Your task to perform on an android device: Open the phone app and click the voicemail tab. Image 0: 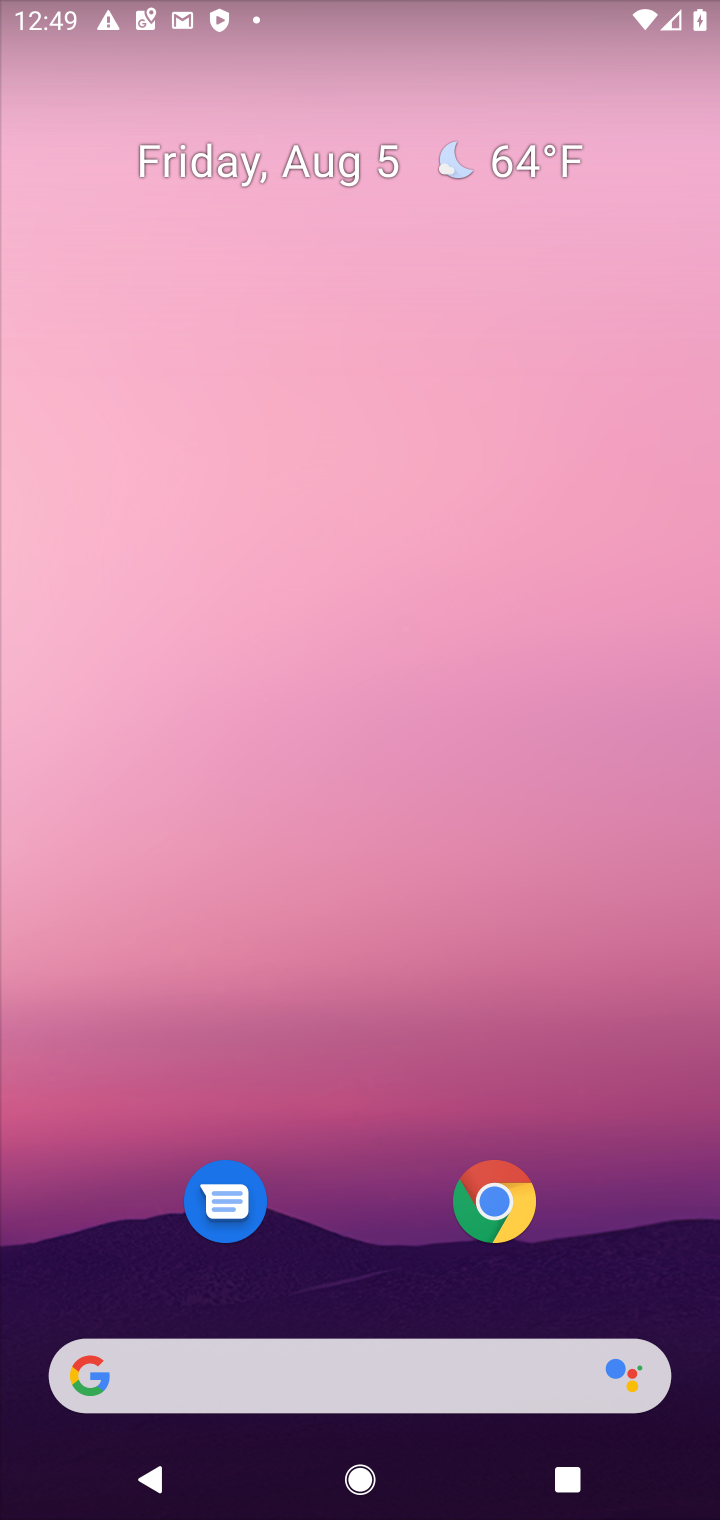
Step 0: drag from (631, 1226) to (641, 363)
Your task to perform on an android device: Open the phone app and click the voicemail tab. Image 1: 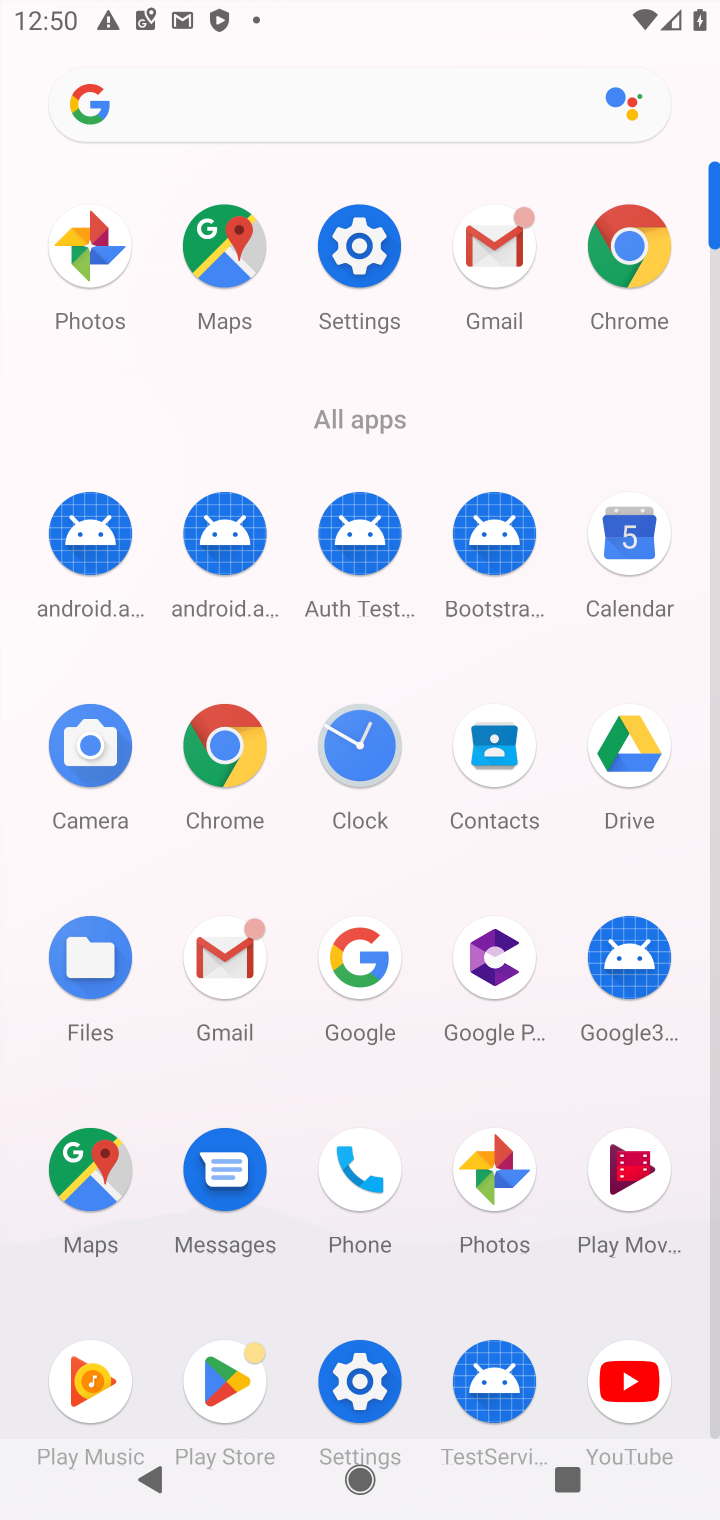
Step 1: click (373, 1171)
Your task to perform on an android device: Open the phone app and click the voicemail tab. Image 2: 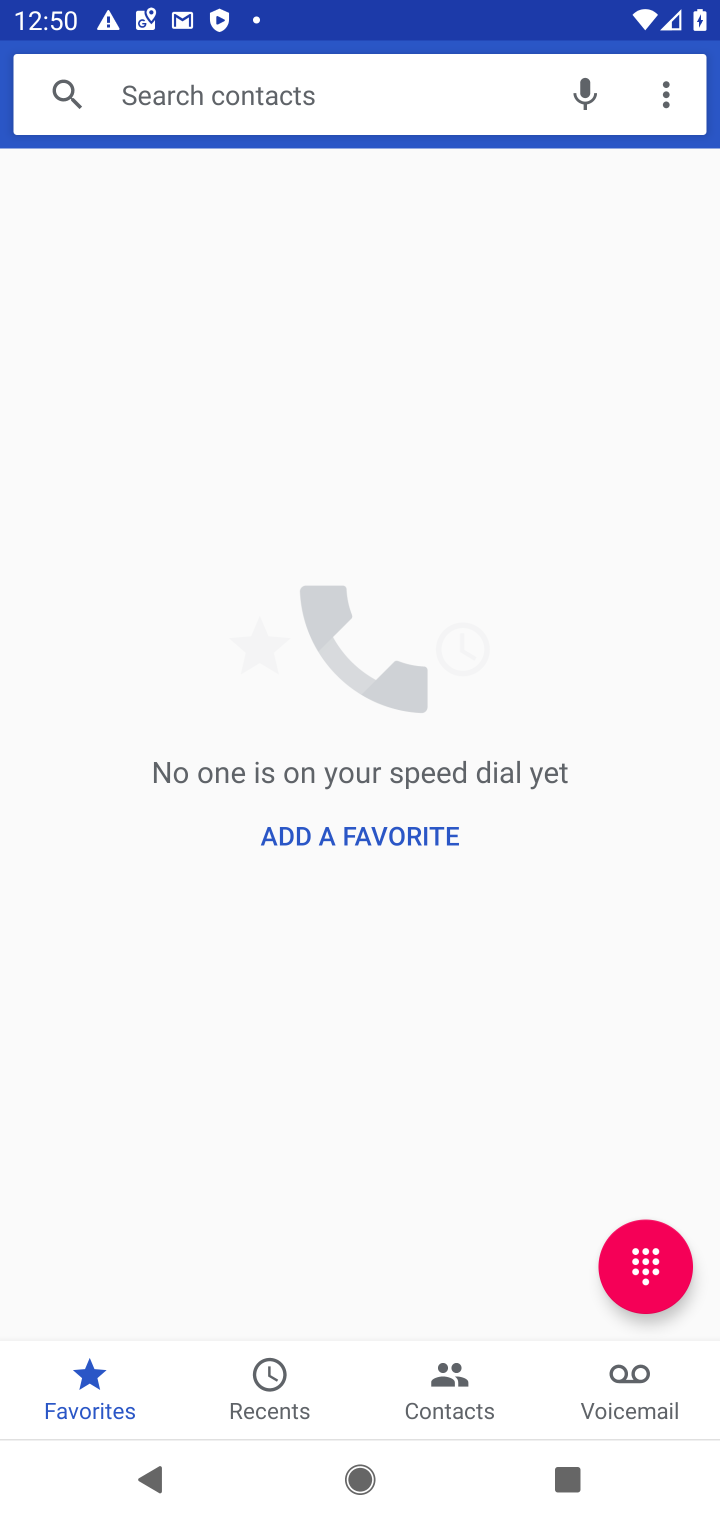
Step 2: click (651, 1401)
Your task to perform on an android device: Open the phone app and click the voicemail tab. Image 3: 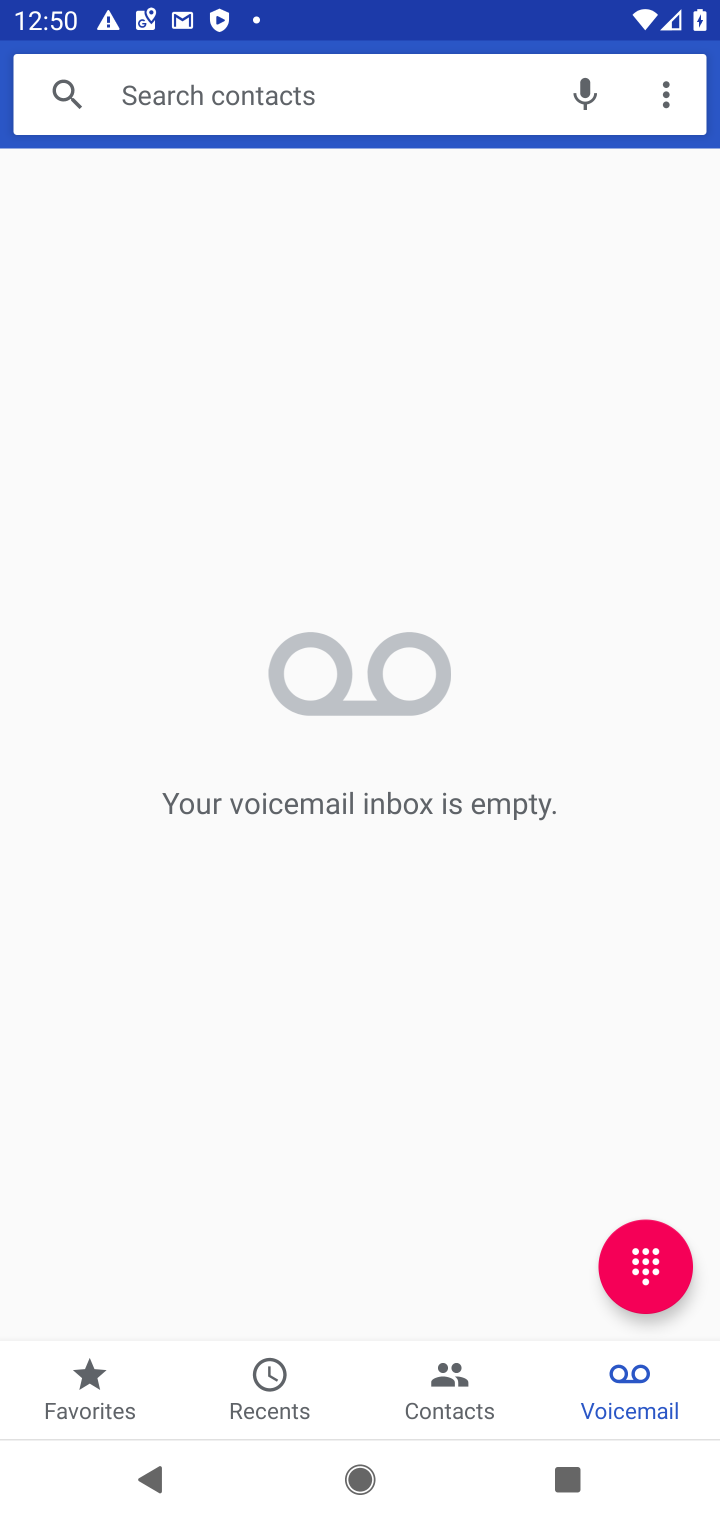
Step 3: task complete